Your task to perform on an android device: Search for pizza restaurants on Maps Image 0: 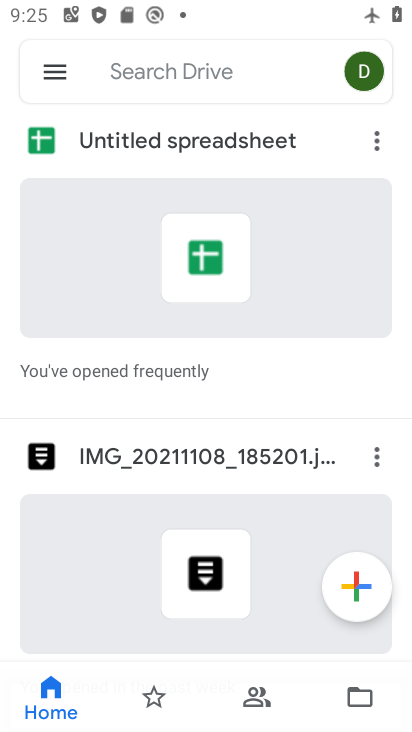
Step 0: press home button
Your task to perform on an android device: Search for pizza restaurants on Maps Image 1: 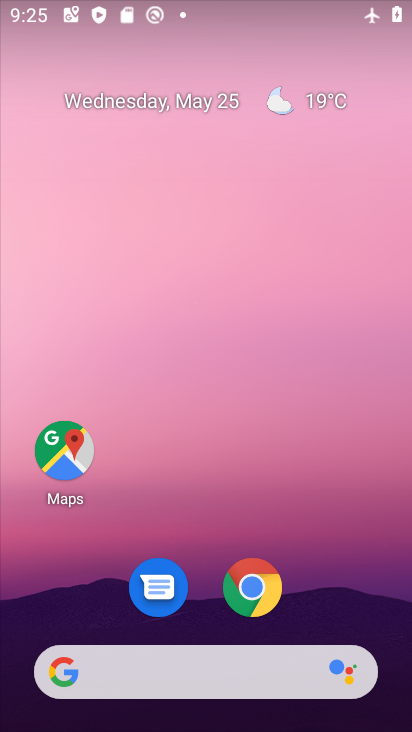
Step 1: click (66, 454)
Your task to perform on an android device: Search for pizza restaurants on Maps Image 2: 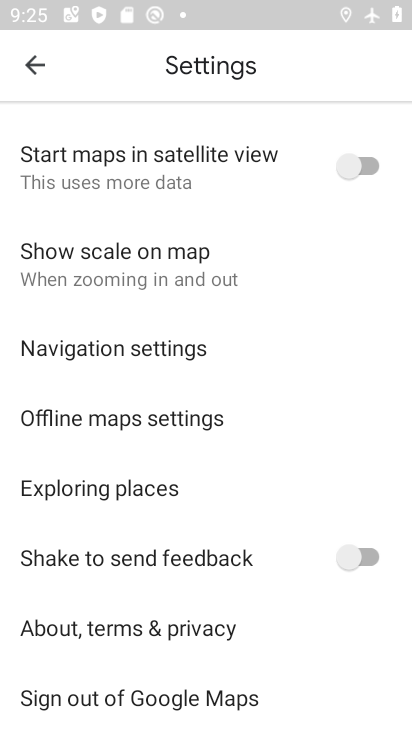
Step 2: press back button
Your task to perform on an android device: Search for pizza restaurants on Maps Image 3: 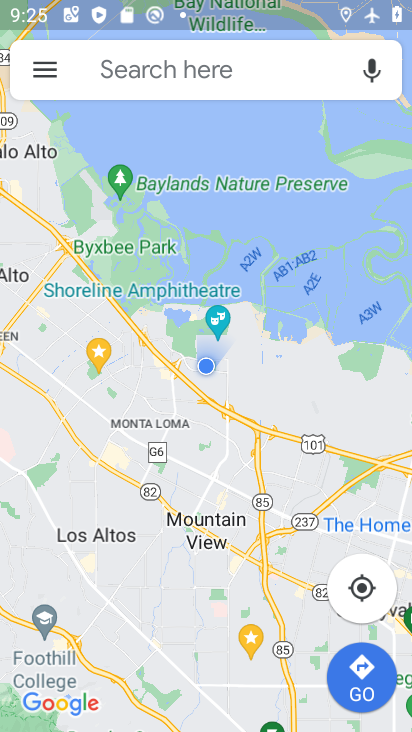
Step 3: click (189, 67)
Your task to perform on an android device: Search for pizza restaurants on Maps Image 4: 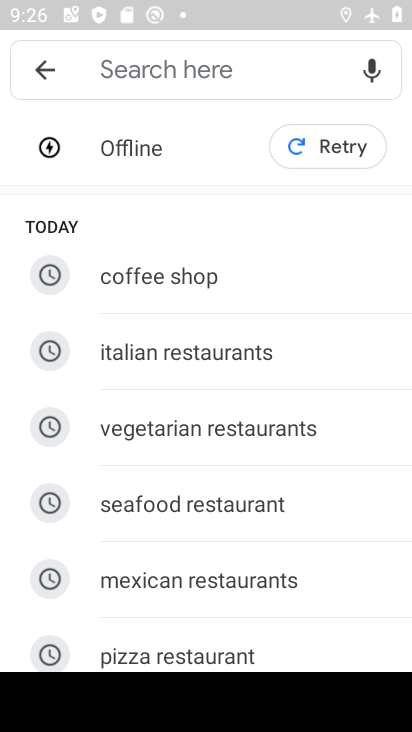
Step 4: type "pizza restaurants"
Your task to perform on an android device: Search for pizza restaurants on Maps Image 5: 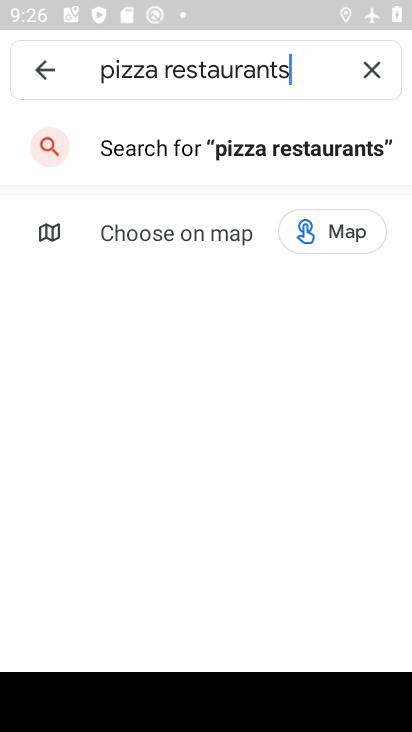
Step 5: click (268, 156)
Your task to perform on an android device: Search for pizza restaurants on Maps Image 6: 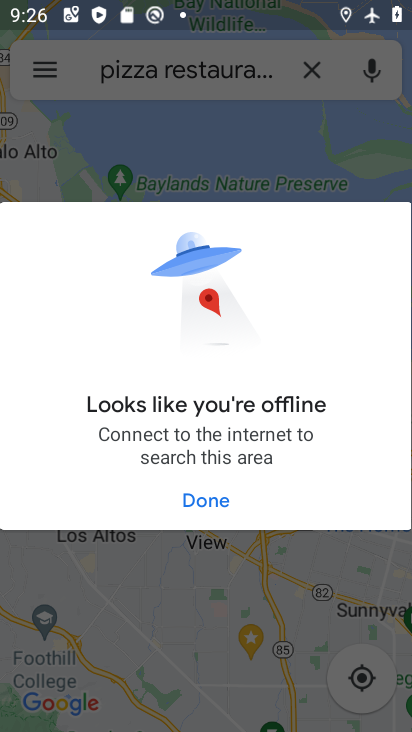
Step 6: click (211, 495)
Your task to perform on an android device: Search for pizza restaurants on Maps Image 7: 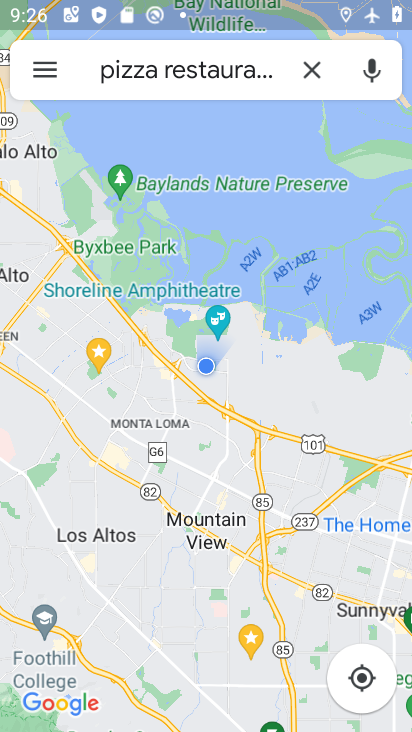
Step 7: task complete